Your task to perform on an android device: What's on my calendar today? Image 0: 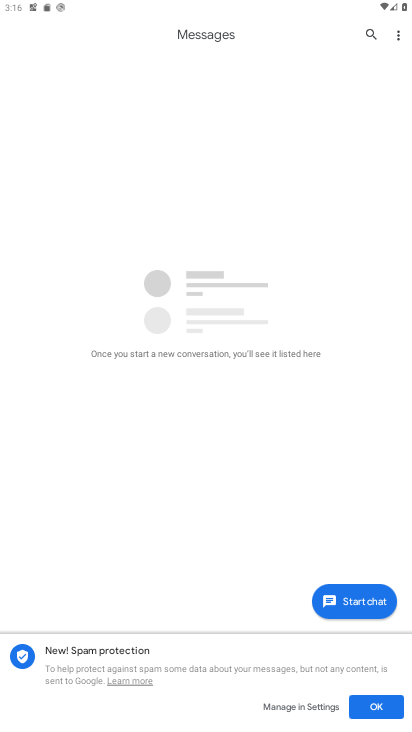
Step 0: press home button
Your task to perform on an android device: What's on my calendar today? Image 1: 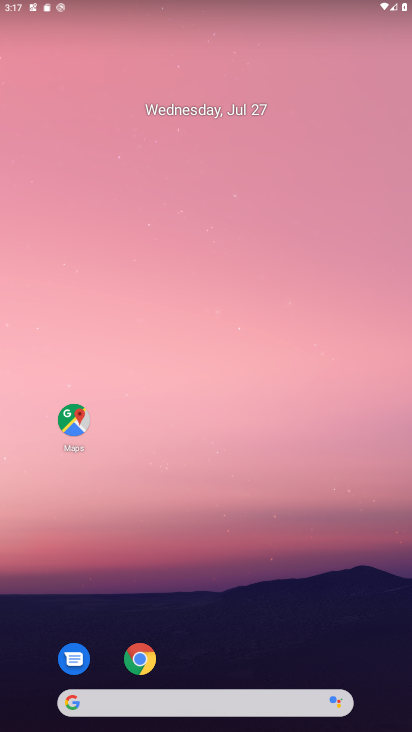
Step 1: drag from (291, 617) to (290, 166)
Your task to perform on an android device: What's on my calendar today? Image 2: 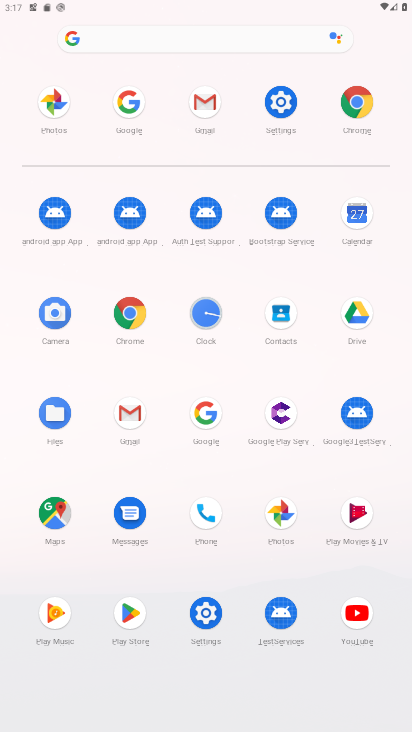
Step 2: click (344, 222)
Your task to perform on an android device: What's on my calendar today? Image 3: 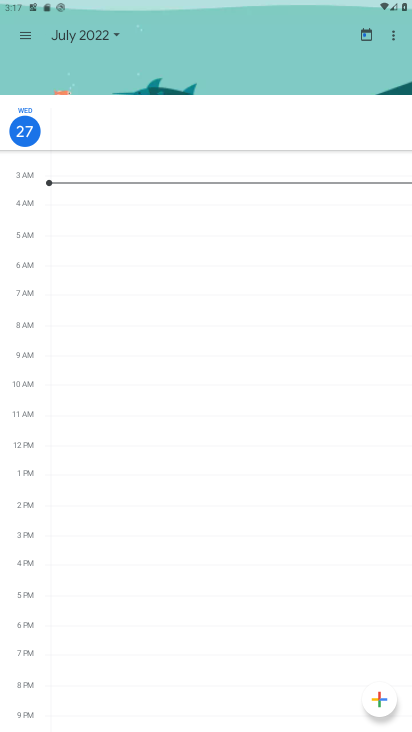
Step 3: click (75, 23)
Your task to perform on an android device: What's on my calendar today? Image 4: 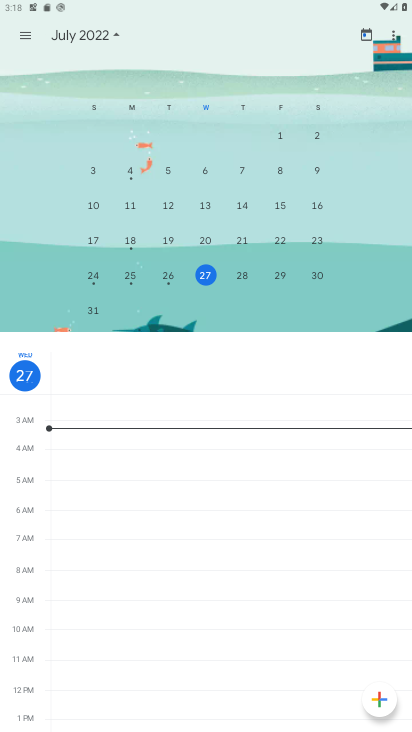
Step 4: task complete